Your task to perform on an android device: What is the news today? Image 0: 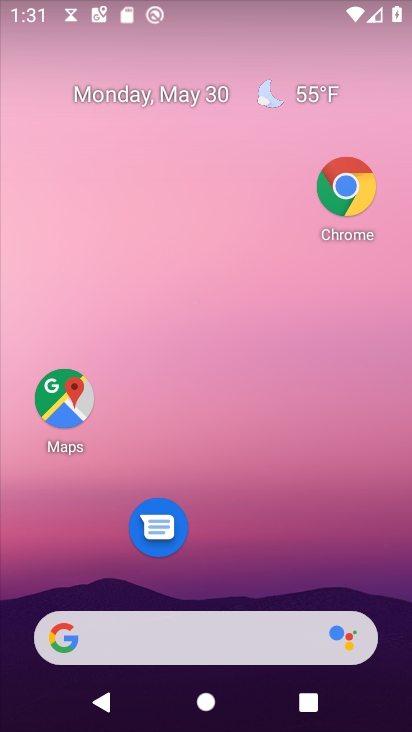
Step 0: drag from (200, 589) to (173, 213)
Your task to perform on an android device: What is the news today? Image 1: 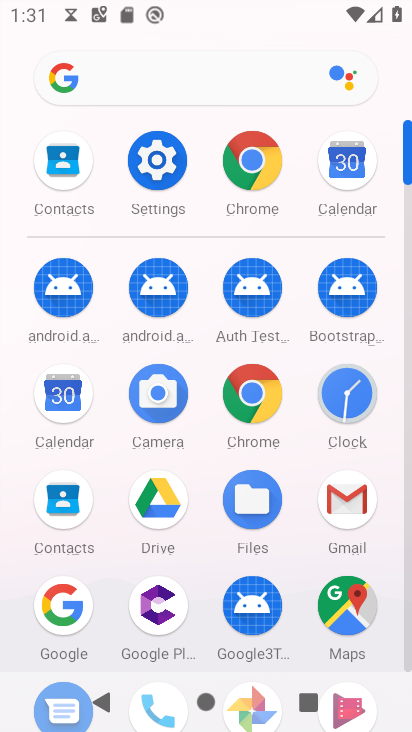
Step 1: click (175, 73)
Your task to perform on an android device: What is the news today? Image 2: 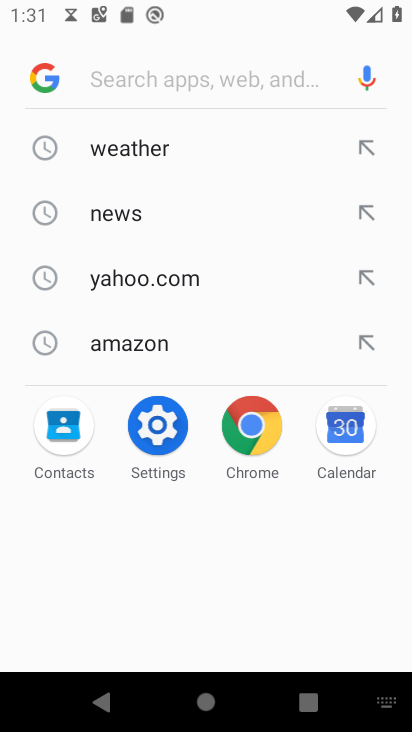
Step 2: click (144, 224)
Your task to perform on an android device: What is the news today? Image 3: 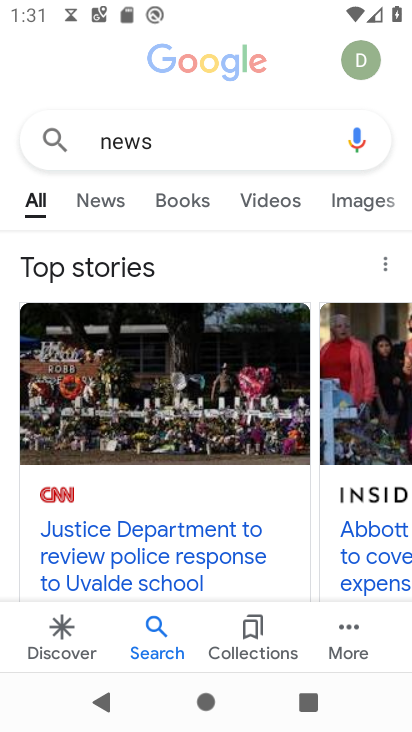
Step 3: task complete